Your task to perform on an android device: turn on showing notifications on the lock screen Image 0: 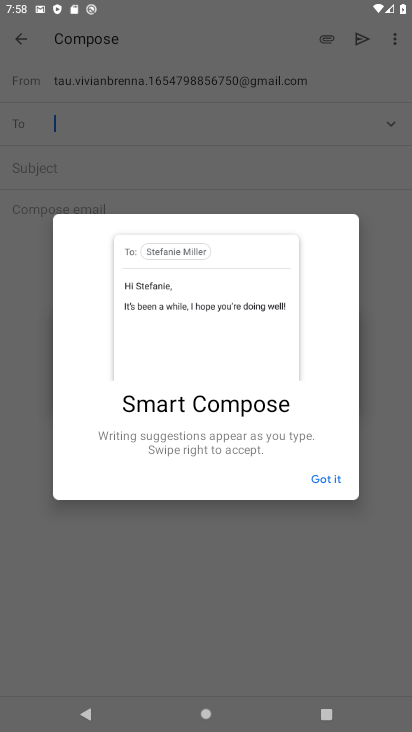
Step 0: press home button
Your task to perform on an android device: turn on showing notifications on the lock screen Image 1: 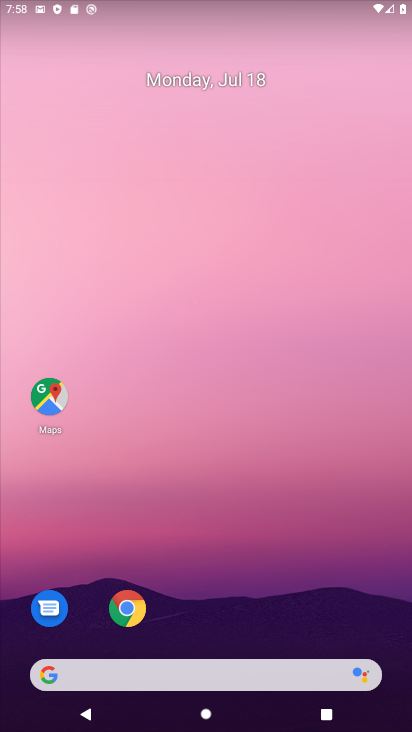
Step 1: drag from (239, 726) to (211, 297)
Your task to perform on an android device: turn on showing notifications on the lock screen Image 2: 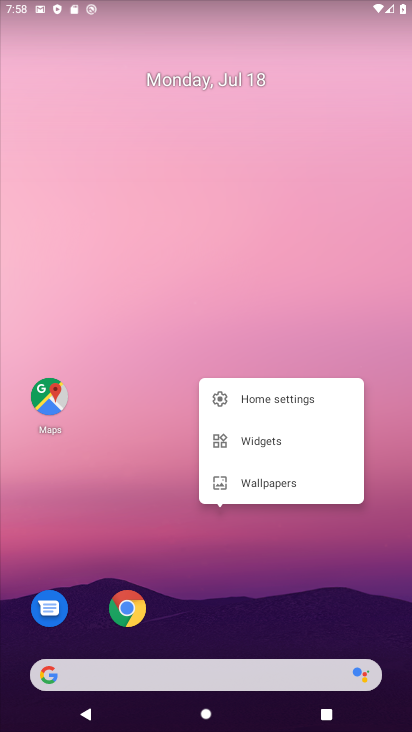
Step 2: click (326, 312)
Your task to perform on an android device: turn on showing notifications on the lock screen Image 3: 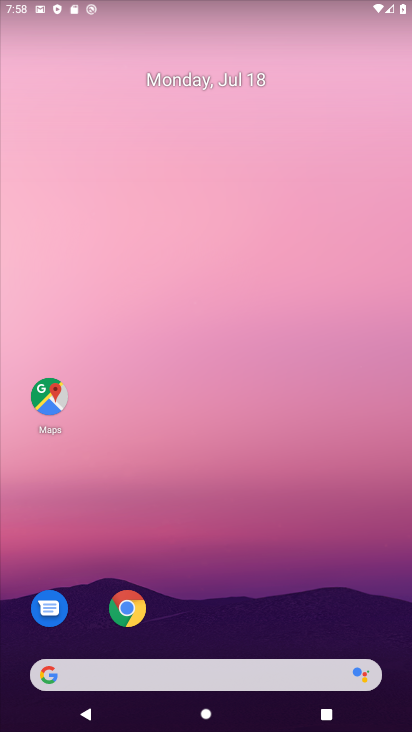
Step 3: drag from (248, 650) to (242, 165)
Your task to perform on an android device: turn on showing notifications on the lock screen Image 4: 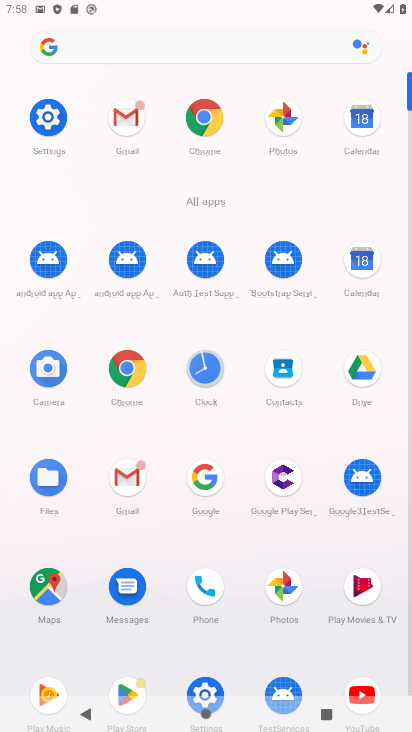
Step 4: click (49, 115)
Your task to perform on an android device: turn on showing notifications on the lock screen Image 5: 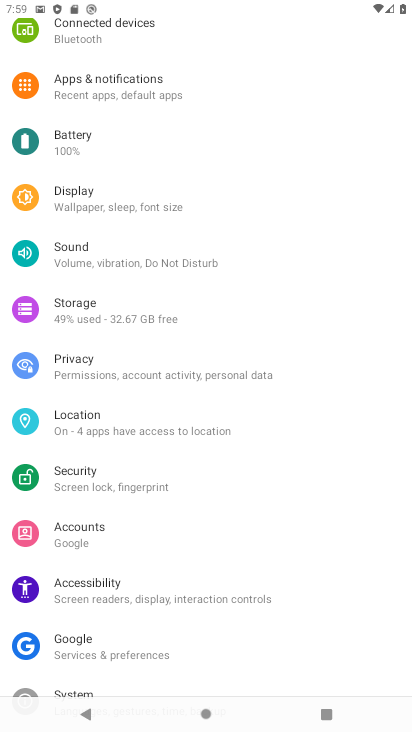
Step 5: click (99, 92)
Your task to perform on an android device: turn on showing notifications on the lock screen Image 6: 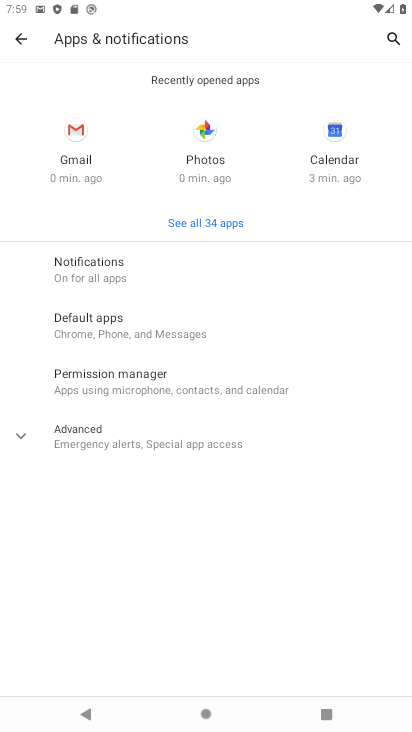
Step 6: click (95, 267)
Your task to perform on an android device: turn on showing notifications on the lock screen Image 7: 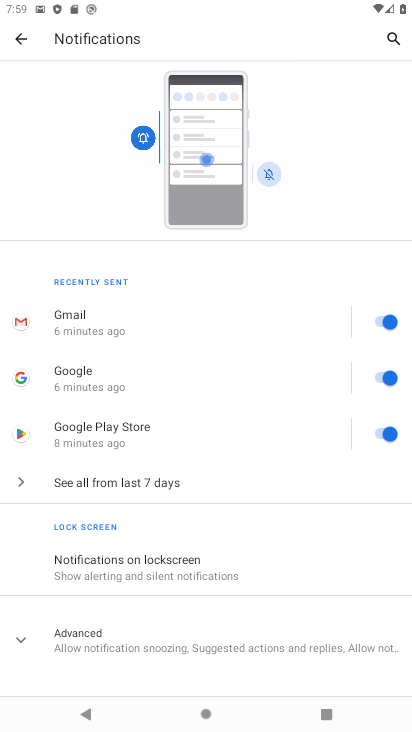
Step 7: task complete